Your task to perform on an android device: find which apps use the phone's location Image 0: 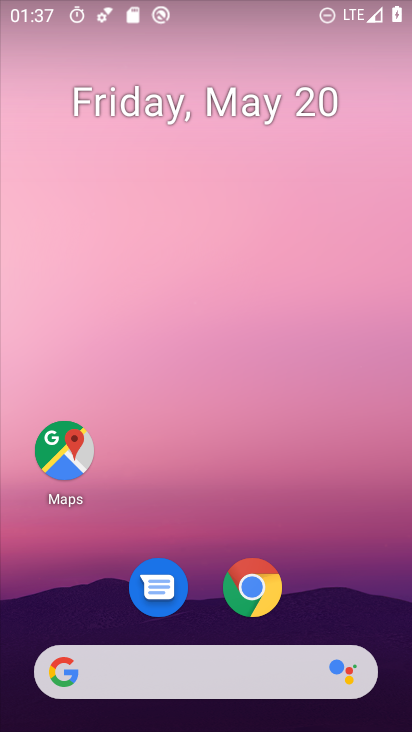
Step 0: drag from (375, 566) to (396, 415)
Your task to perform on an android device: find which apps use the phone's location Image 1: 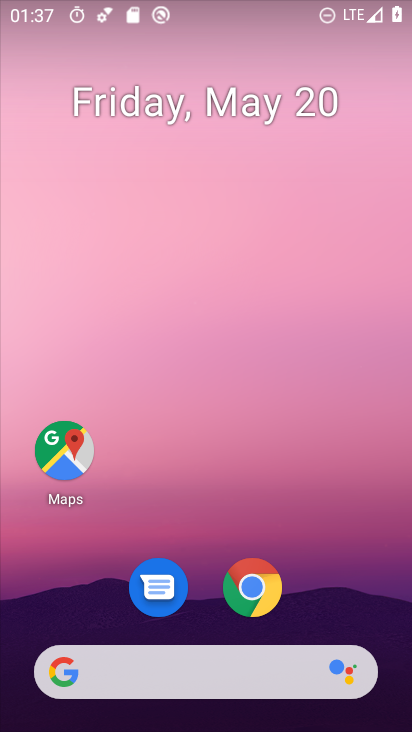
Step 1: drag from (368, 601) to (367, 245)
Your task to perform on an android device: find which apps use the phone's location Image 2: 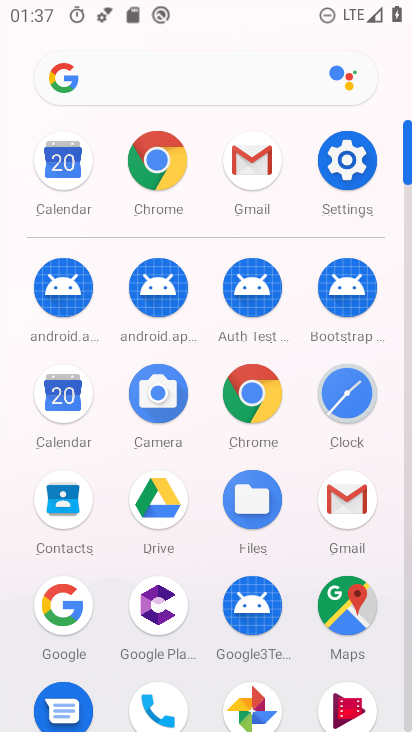
Step 2: click (360, 190)
Your task to perform on an android device: find which apps use the phone's location Image 3: 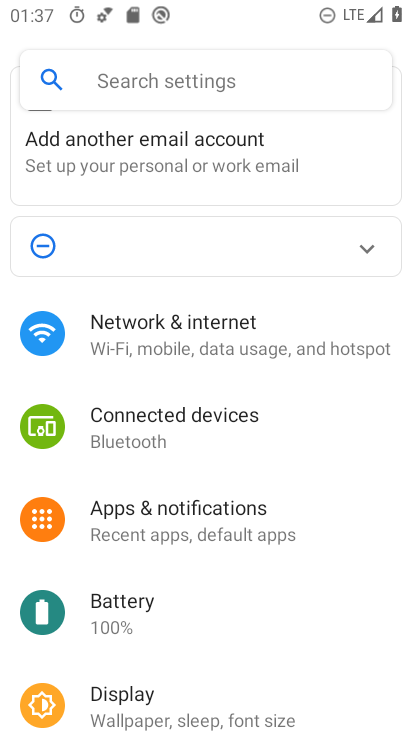
Step 3: drag from (358, 576) to (362, 495)
Your task to perform on an android device: find which apps use the phone's location Image 4: 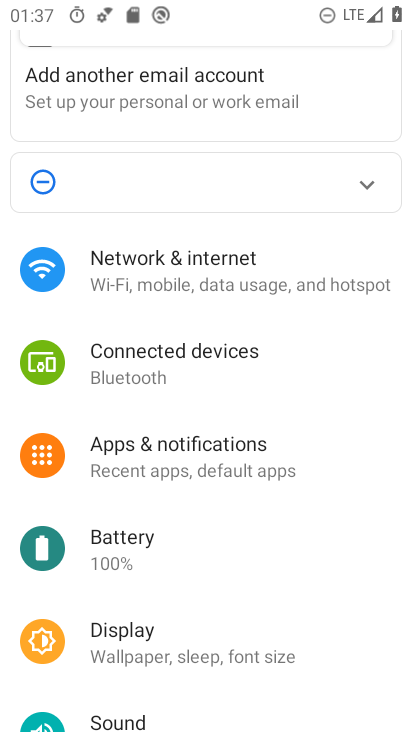
Step 4: drag from (371, 569) to (368, 486)
Your task to perform on an android device: find which apps use the phone's location Image 5: 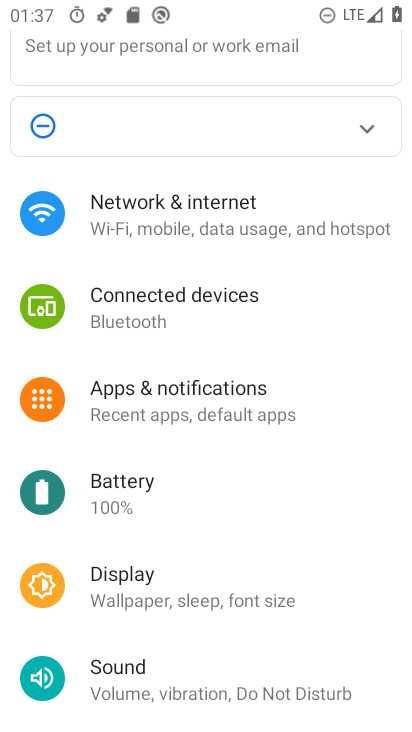
Step 5: drag from (351, 597) to (355, 504)
Your task to perform on an android device: find which apps use the phone's location Image 6: 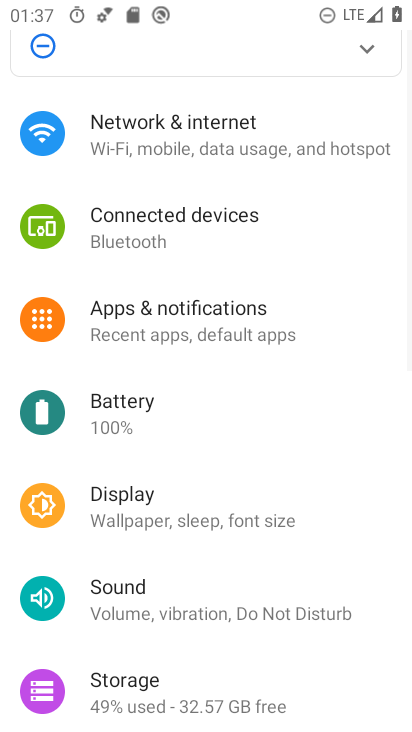
Step 6: drag from (348, 672) to (361, 591)
Your task to perform on an android device: find which apps use the phone's location Image 7: 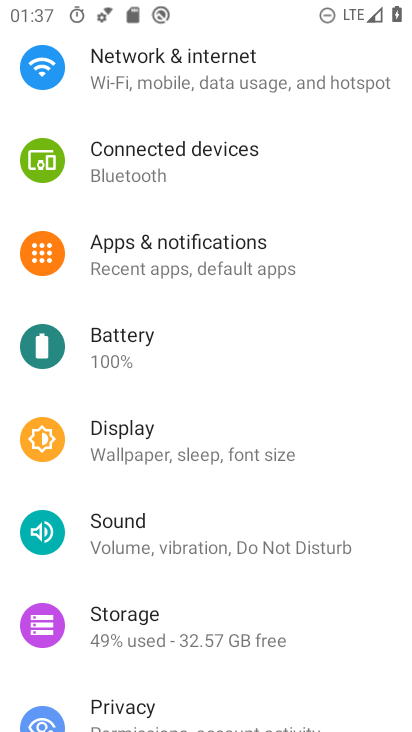
Step 7: drag from (366, 698) to (372, 613)
Your task to perform on an android device: find which apps use the phone's location Image 8: 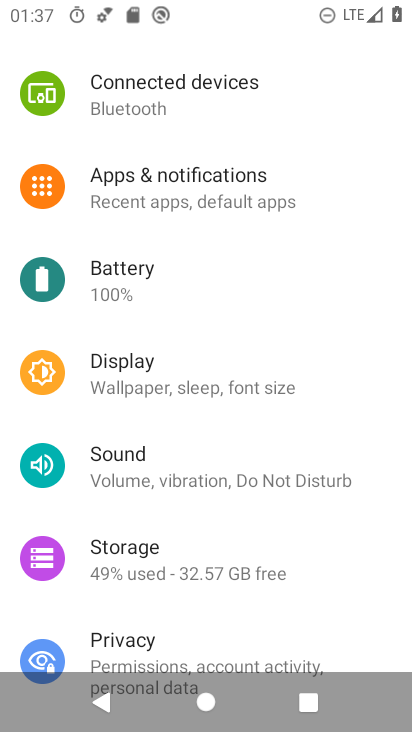
Step 8: drag from (366, 708) to (374, 629)
Your task to perform on an android device: find which apps use the phone's location Image 9: 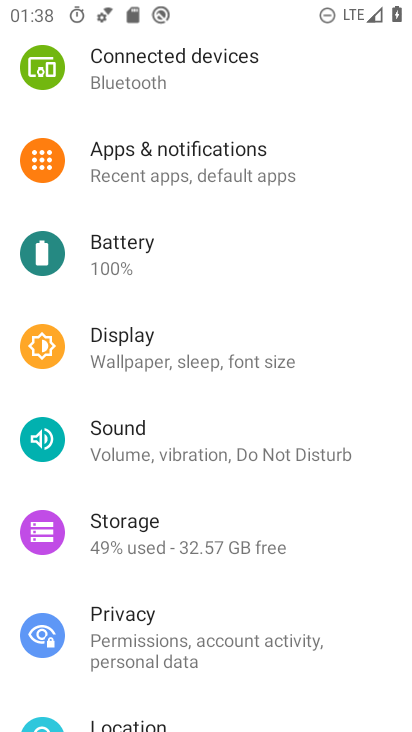
Step 9: drag from (345, 562) to (359, 435)
Your task to perform on an android device: find which apps use the phone's location Image 10: 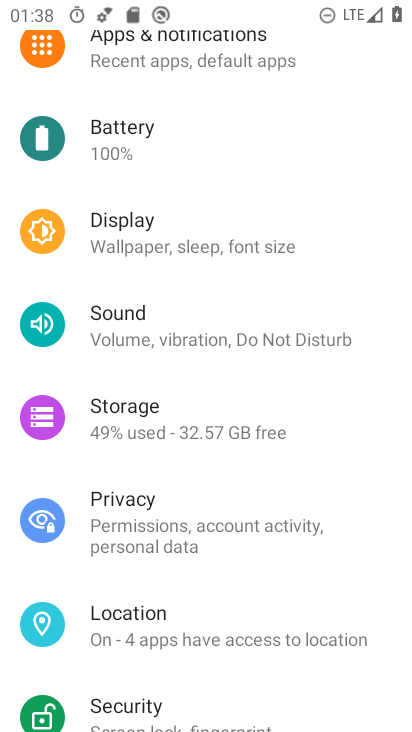
Step 10: drag from (363, 606) to (364, 516)
Your task to perform on an android device: find which apps use the phone's location Image 11: 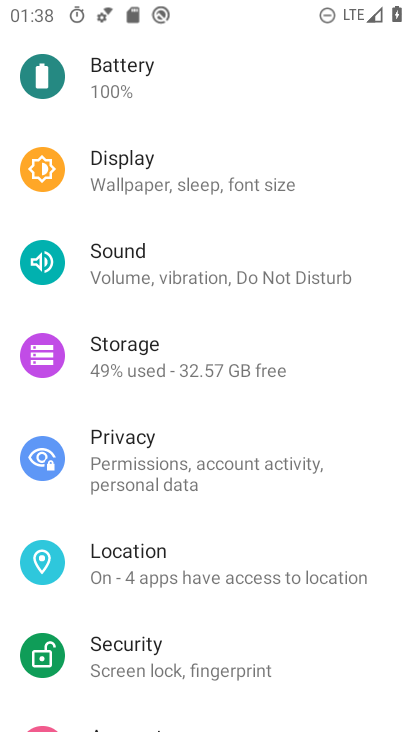
Step 11: click (315, 568)
Your task to perform on an android device: find which apps use the phone's location Image 12: 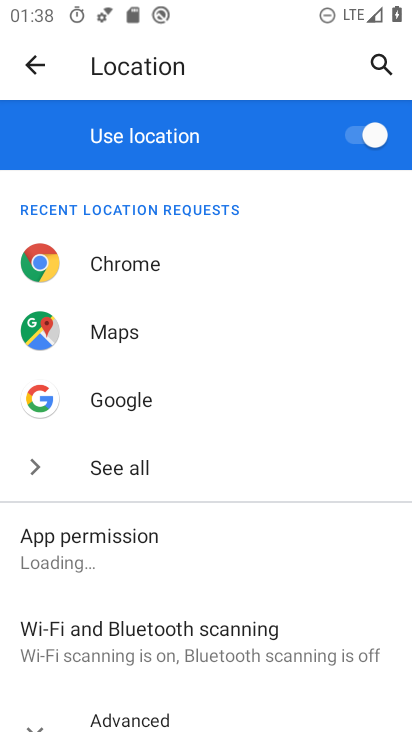
Step 12: drag from (313, 567) to (328, 498)
Your task to perform on an android device: find which apps use the phone's location Image 13: 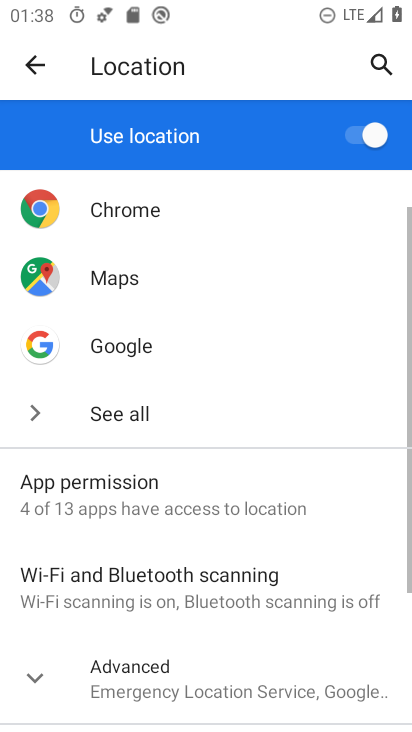
Step 13: click (341, 570)
Your task to perform on an android device: find which apps use the phone's location Image 14: 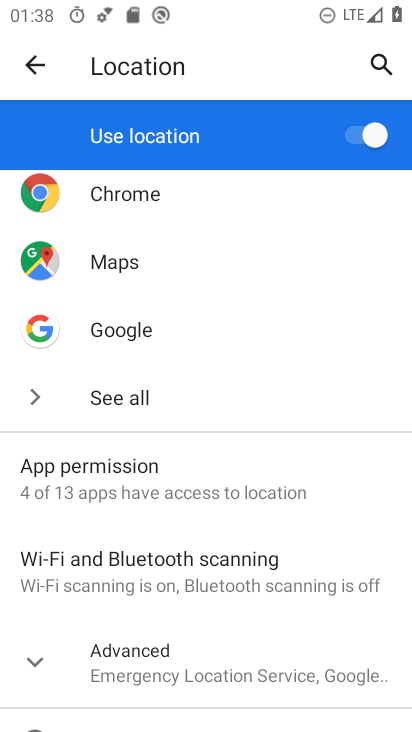
Step 14: click (194, 472)
Your task to perform on an android device: find which apps use the phone's location Image 15: 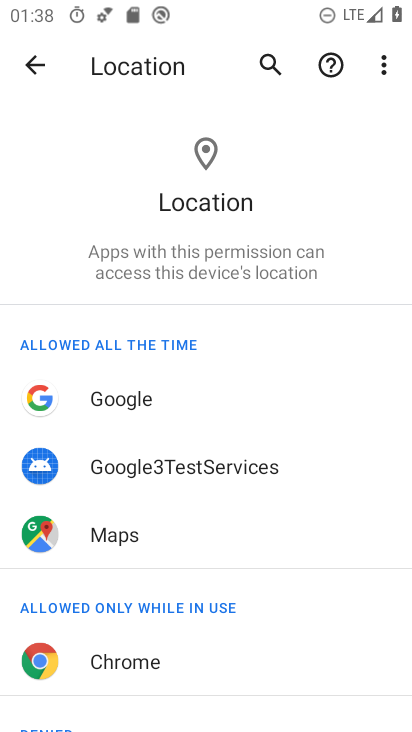
Step 15: drag from (383, 591) to (372, 497)
Your task to perform on an android device: find which apps use the phone's location Image 16: 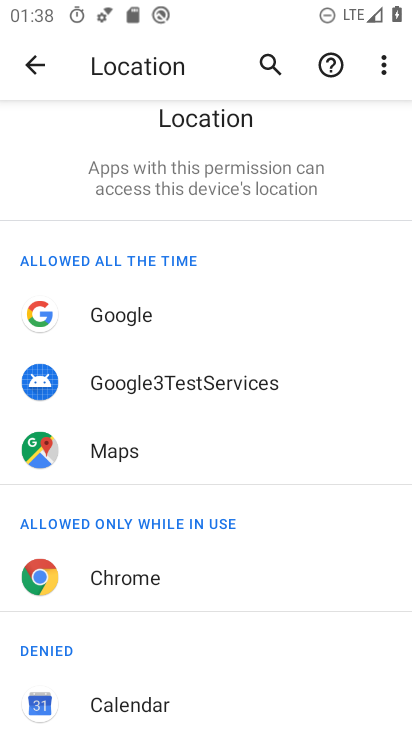
Step 16: click (381, 547)
Your task to perform on an android device: find which apps use the phone's location Image 17: 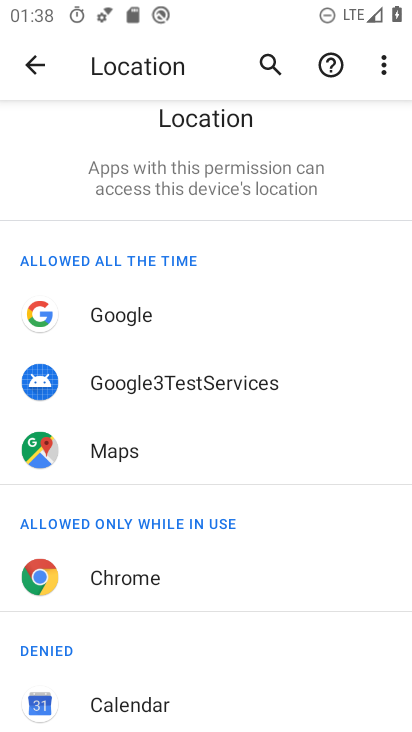
Step 17: click (390, 591)
Your task to perform on an android device: find which apps use the phone's location Image 18: 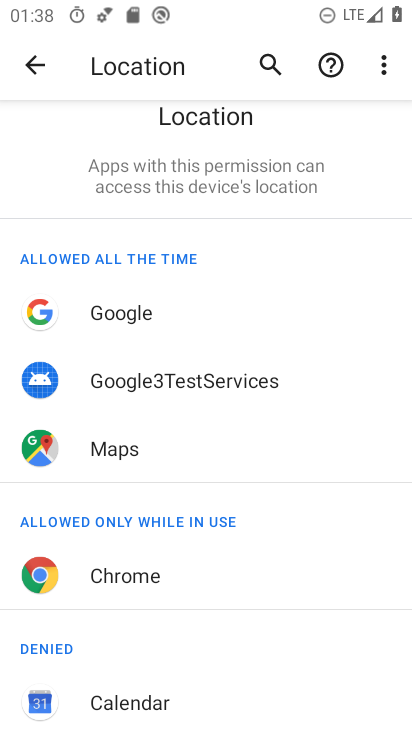
Step 18: drag from (386, 631) to (391, 578)
Your task to perform on an android device: find which apps use the phone's location Image 19: 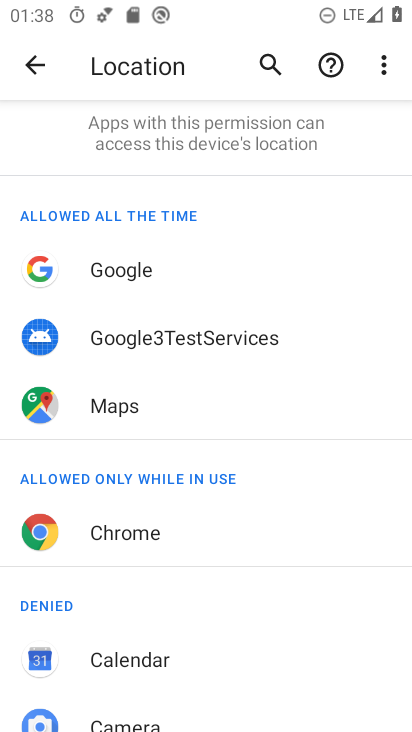
Step 19: click (397, 607)
Your task to perform on an android device: find which apps use the phone's location Image 20: 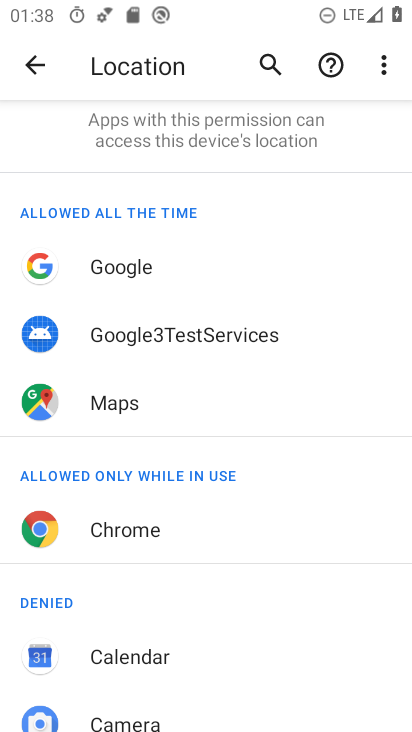
Step 20: drag from (369, 625) to (368, 550)
Your task to perform on an android device: find which apps use the phone's location Image 21: 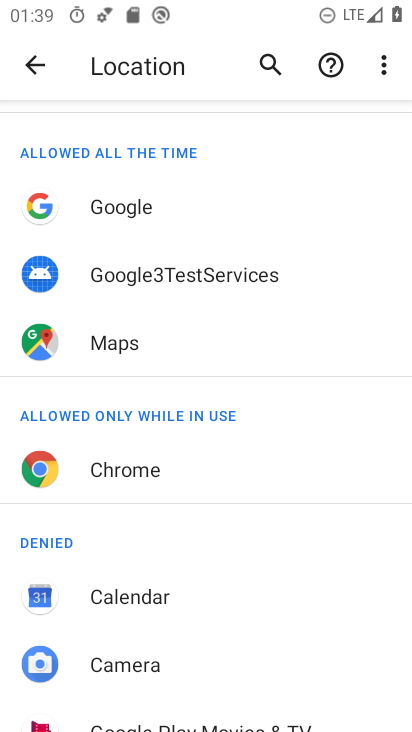
Step 21: drag from (324, 646) to (324, 579)
Your task to perform on an android device: find which apps use the phone's location Image 22: 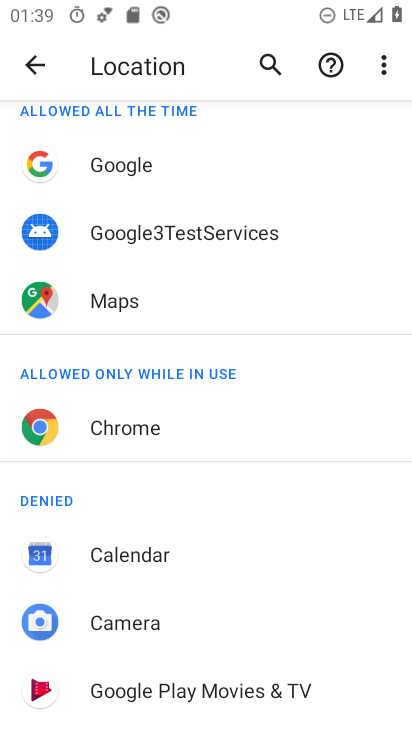
Step 22: drag from (340, 637) to (327, 411)
Your task to perform on an android device: find which apps use the phone's location Image 23: 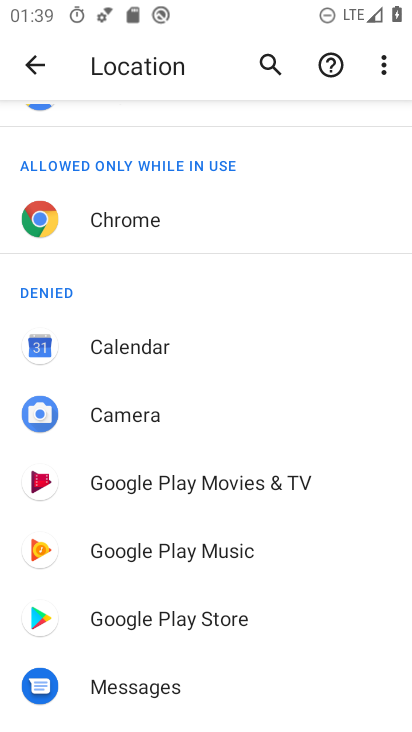
Step 23: drag from (316, 604) to (318, 389)
Your task to perform on an android device: find which apps use the phone's location Image 24: 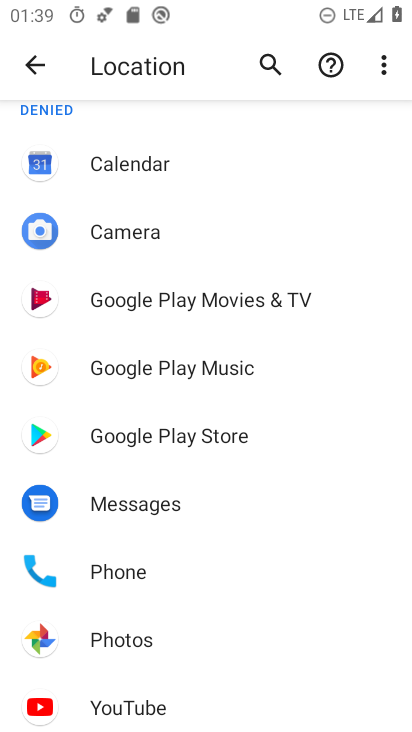
Step 24: click (144, 640)
Your task to perform on an android device: find which apps use the phone's location Image 25: 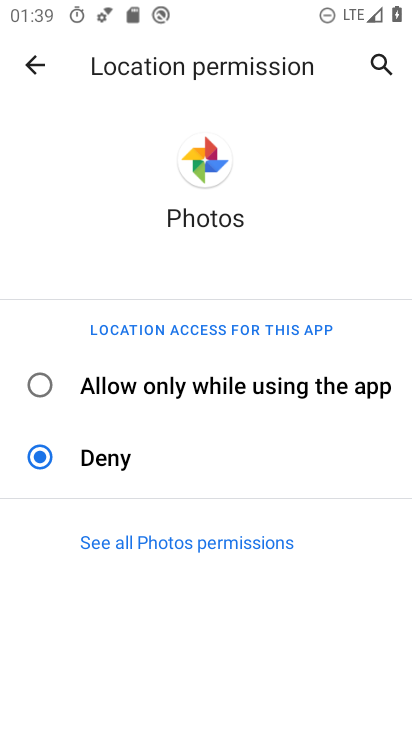
Step 25: click (215, 384)
Your task to perform on an android device: find which apps use the phone's location Image 26: 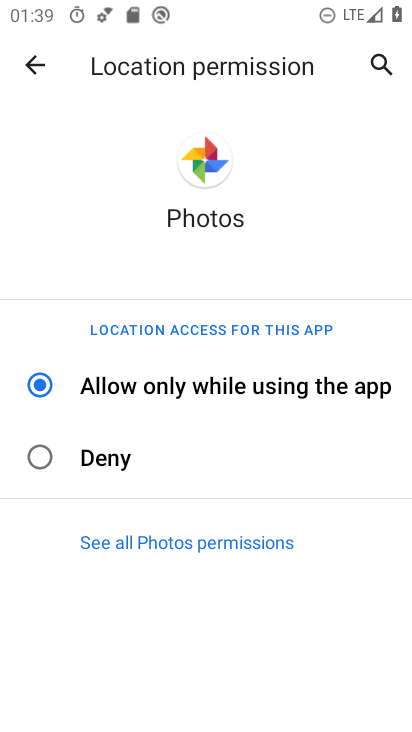
Step 26: task complete